Your task to perform on an android device: Search for a new desk on IKEA Image 0: 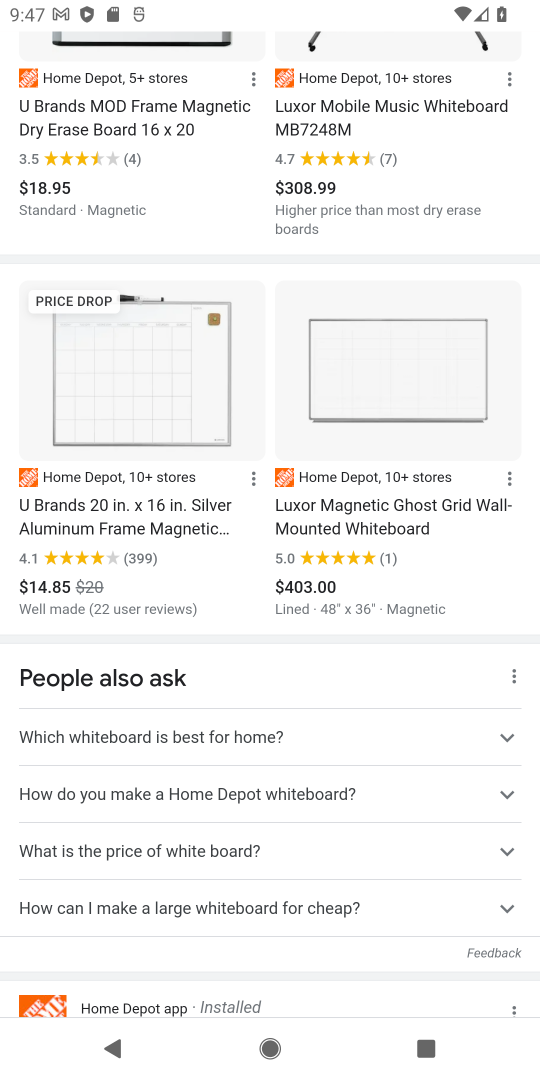
Step 0: press home button
Your task to perform on an android device: Search for a new desk on IKEA Image 1: 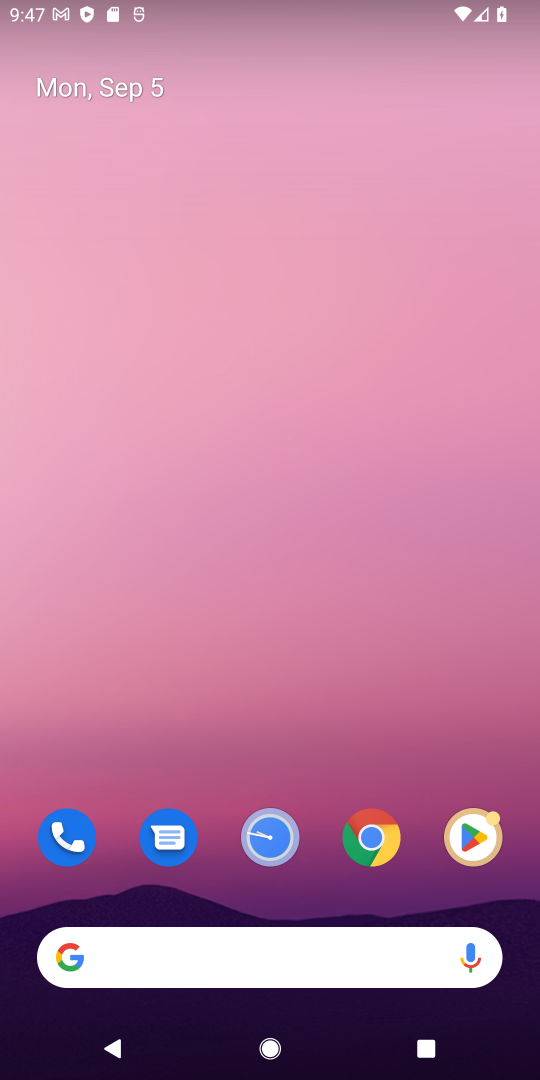
Step 1: drag from (313, 769) to (366, 6)
Your task to perform on an android device: Search for a new desk on IKEA Image 2: 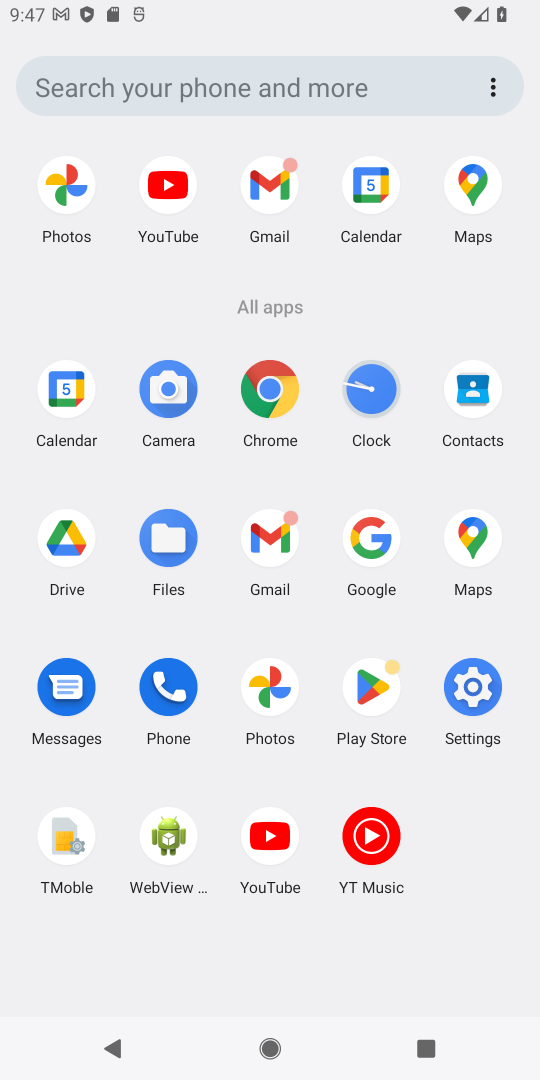
Step 2: click (283, 396)
Your task to perform on an android device: Search for a new desk on IKEA Image 3: 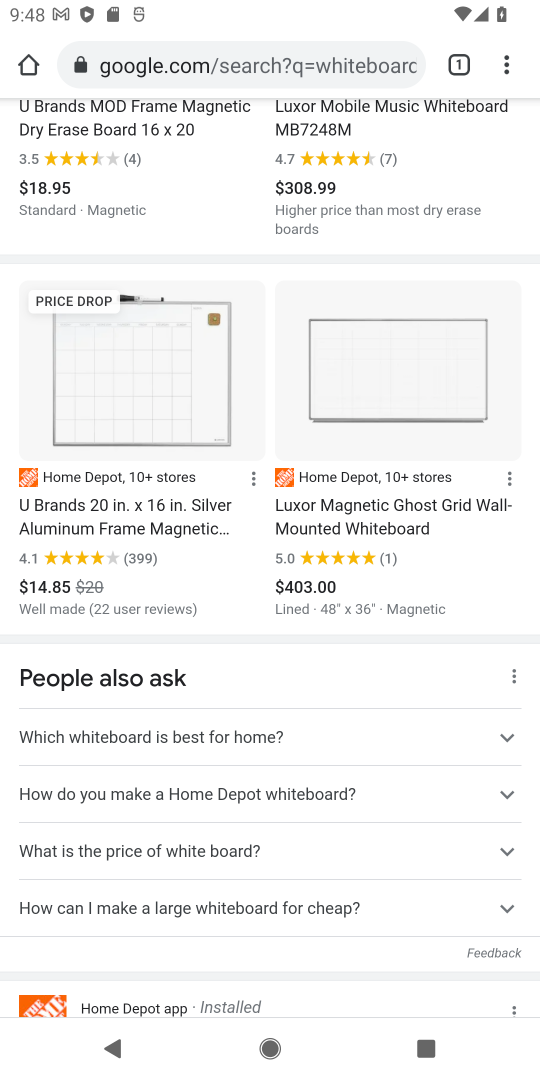
Step 3: click (455, 65)
Your task to perform on an android device: Search for a new desk on IKEA Image 4: 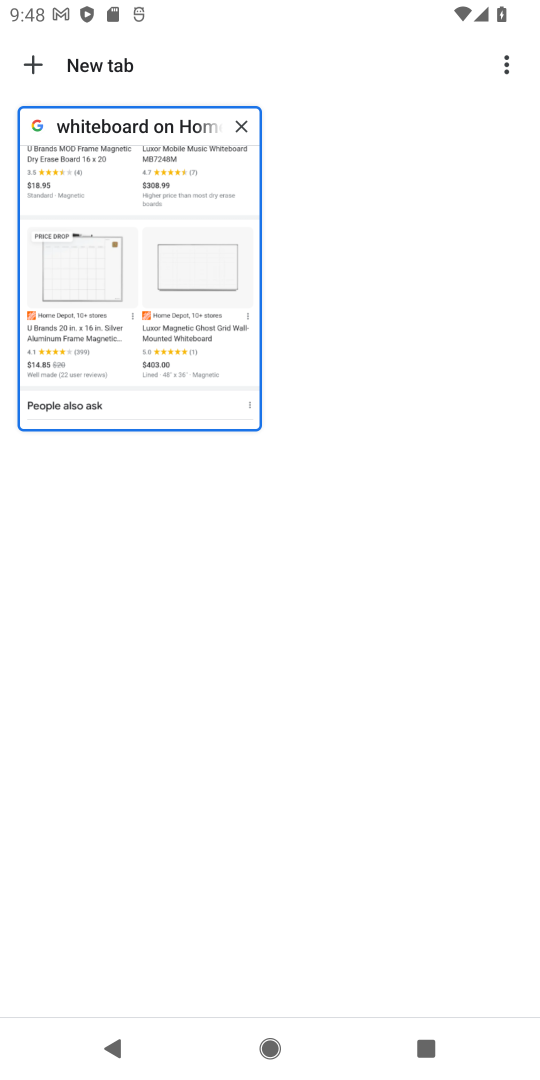
Step 4: click (30, 68)
Your task to perform on an android device: Search for a new desk on IKEA Image 5: 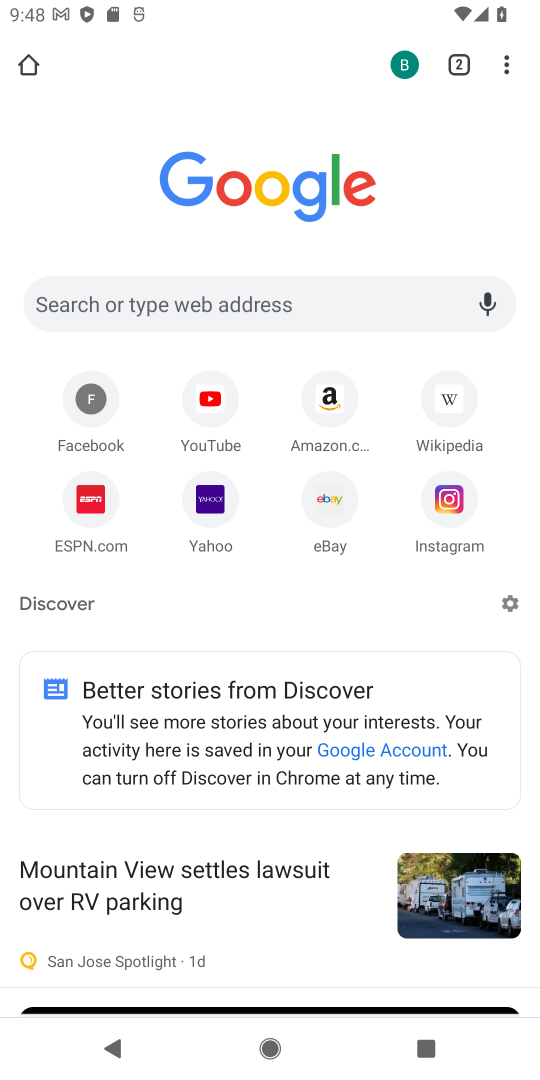
Step 5: click (204, 298)
Your task to perform on an android device: Search for a new desk on IKEA Image 6: 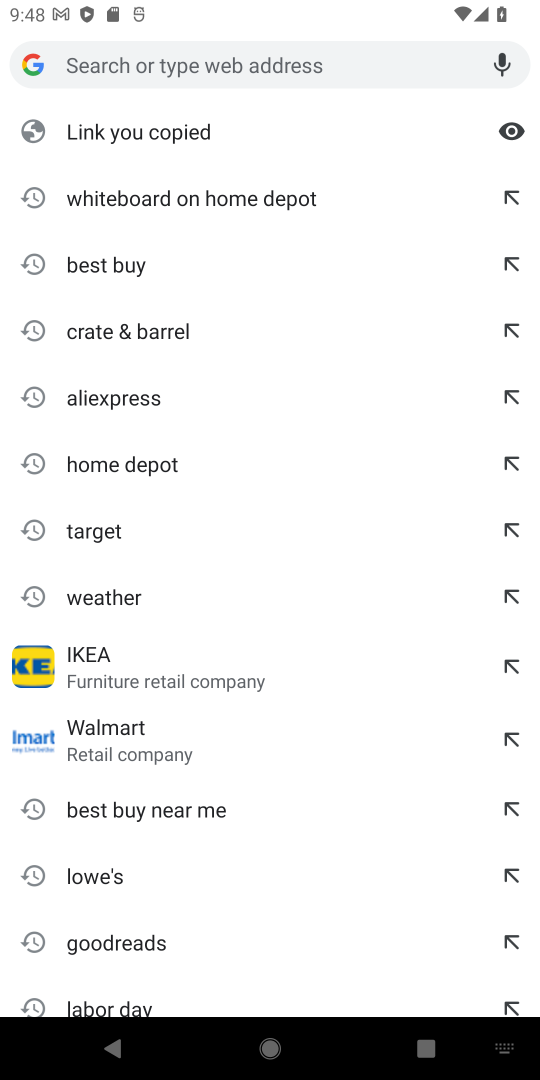
Step 6: type "new desk on IKEA"
Your task to perform on an android device: Search for a new desk on IKEA Image 7: 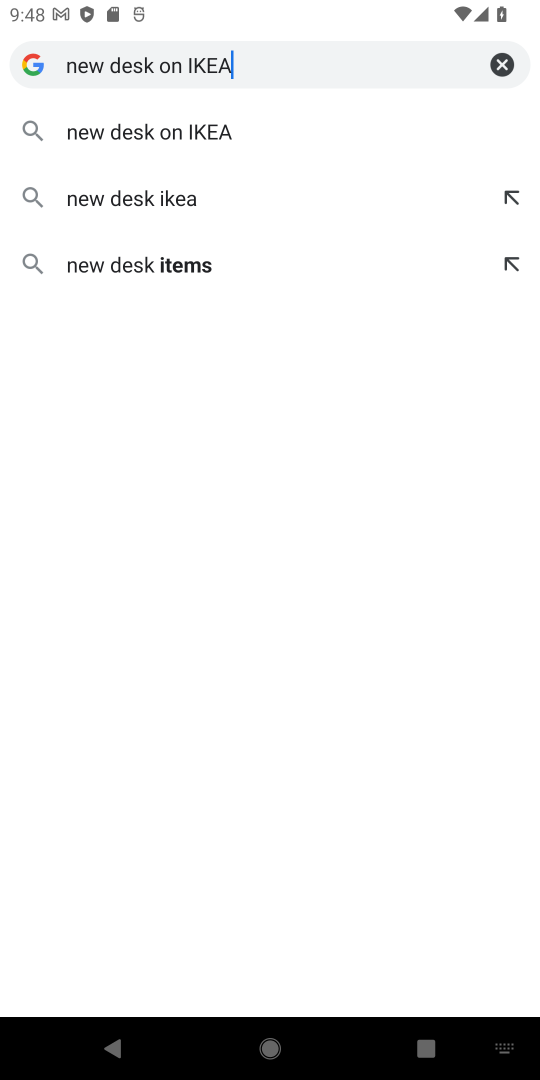
Step 7: click (236, 122)
Your task to perform on an android device: Search for a new desk on IKEA Image 8: 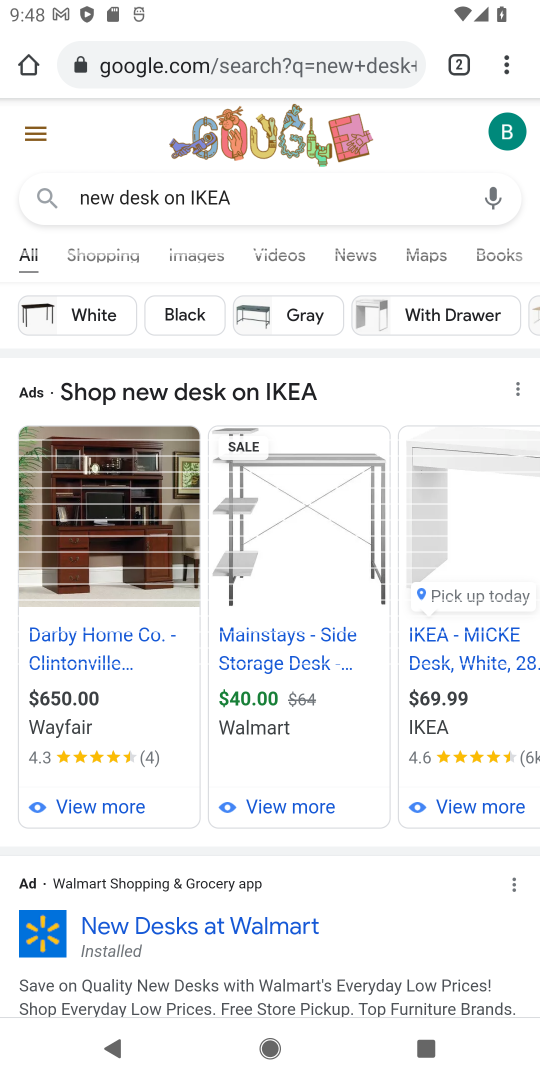
Step 8: drag from (306, 968) to (243, 449)
Your task to perform on an android device: Search for a new desk on IKEA Image 9: 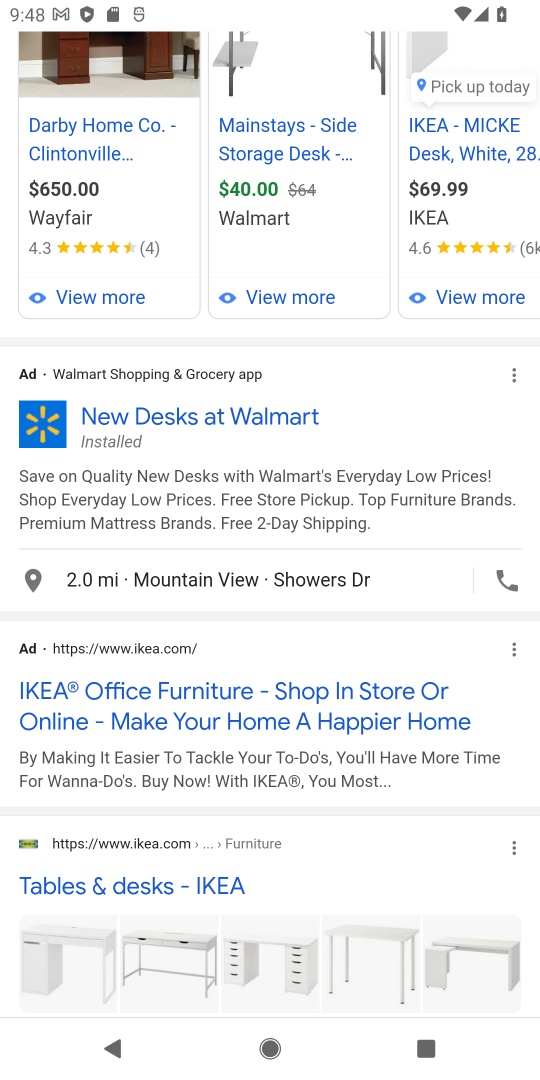
Step 9: drag from (375, 918) to (356, 397)
Your task to perform on an android device: Search for a new desk on IKEA Image 10: 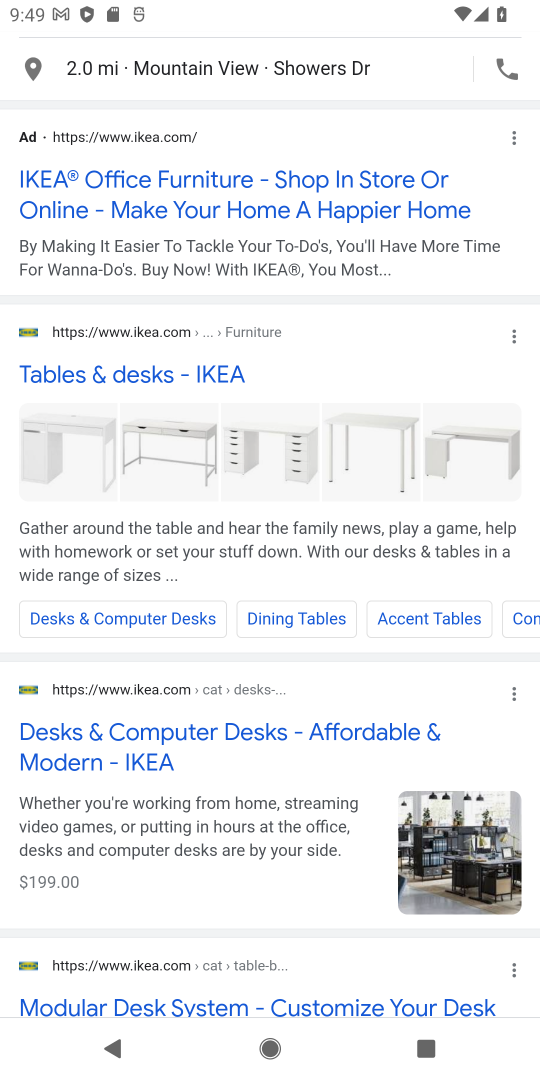
Step 10: click (219, 379)
Your task to perform on an android device: Search for a new desk on IKEA Image 11: 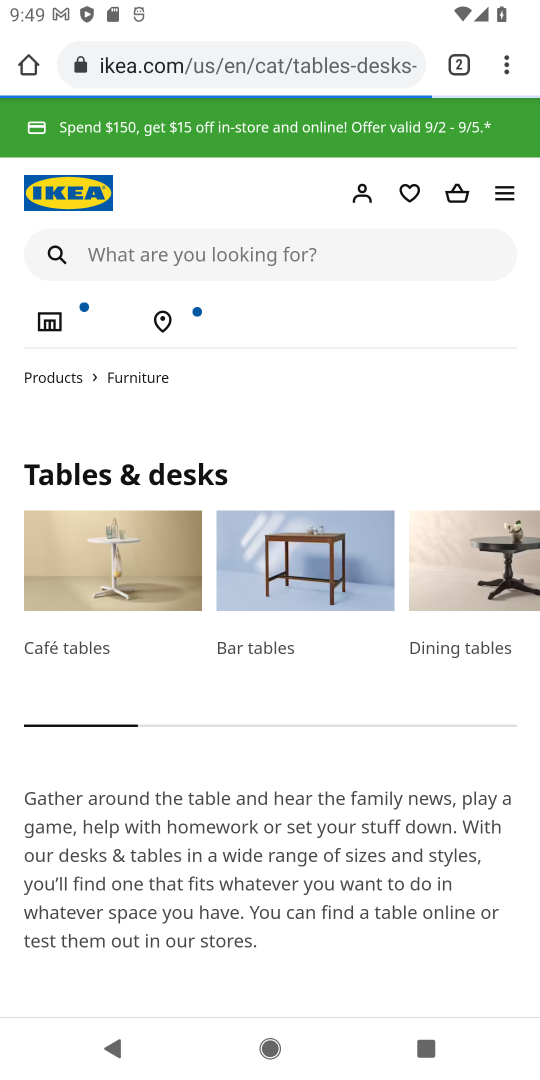
Step 11: drag from (272, 753) to (292, 130)
Your task to perform on an android device: Search for a new desk on IKEA Image 12: 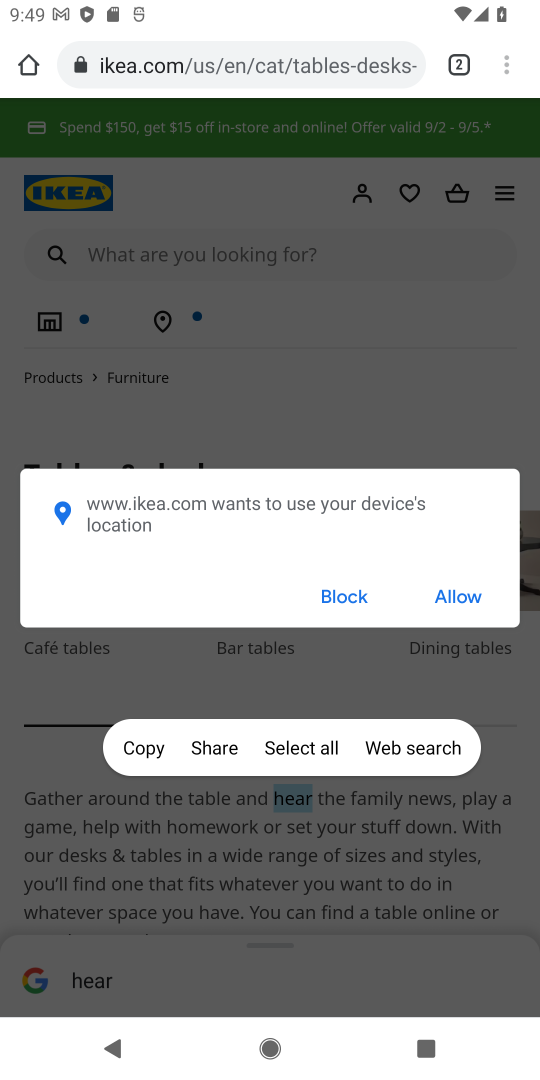
Step 12: drag from (244, 489) to (253, 128)
Your task to perform on an android device: Search for a new desk on IKEA Image 13: 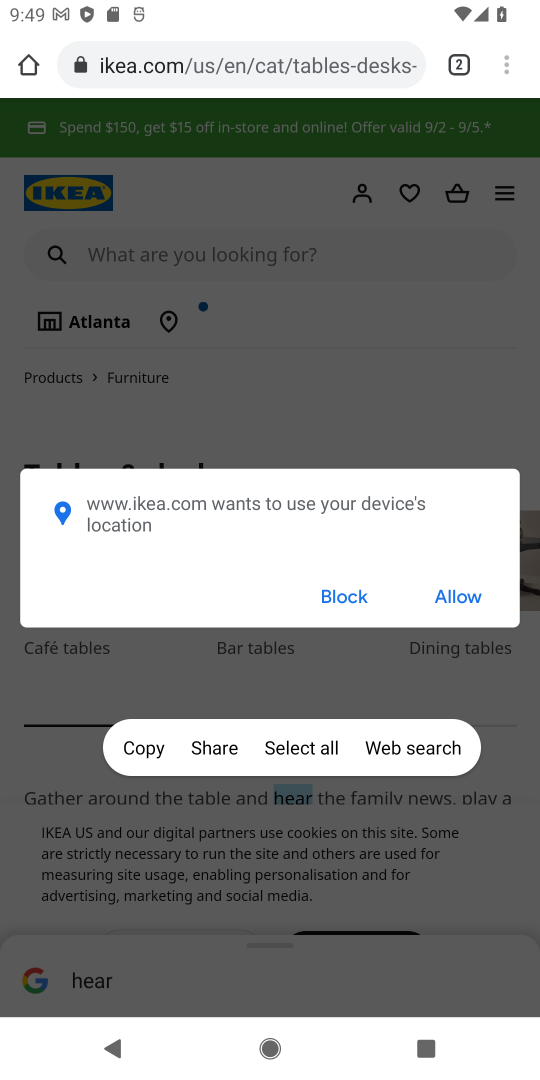
Step 13: click (459, 597)
Your task to perform on an android device: Search for a new desk on IKEA Image 14: 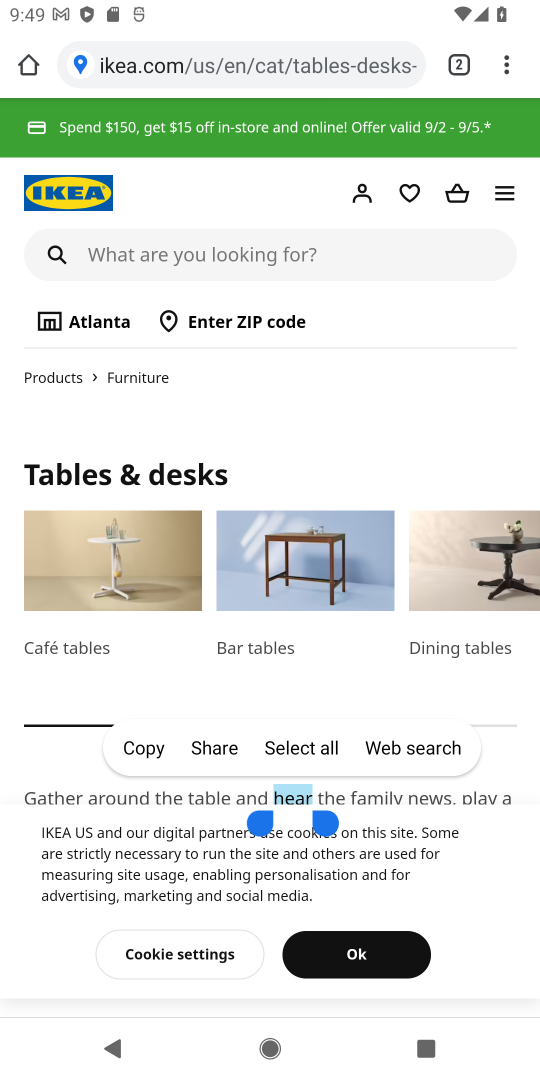
Step 14: click (356, 957)
Your task to perform on an android device: Search for a new desk on IKEA Image 15: 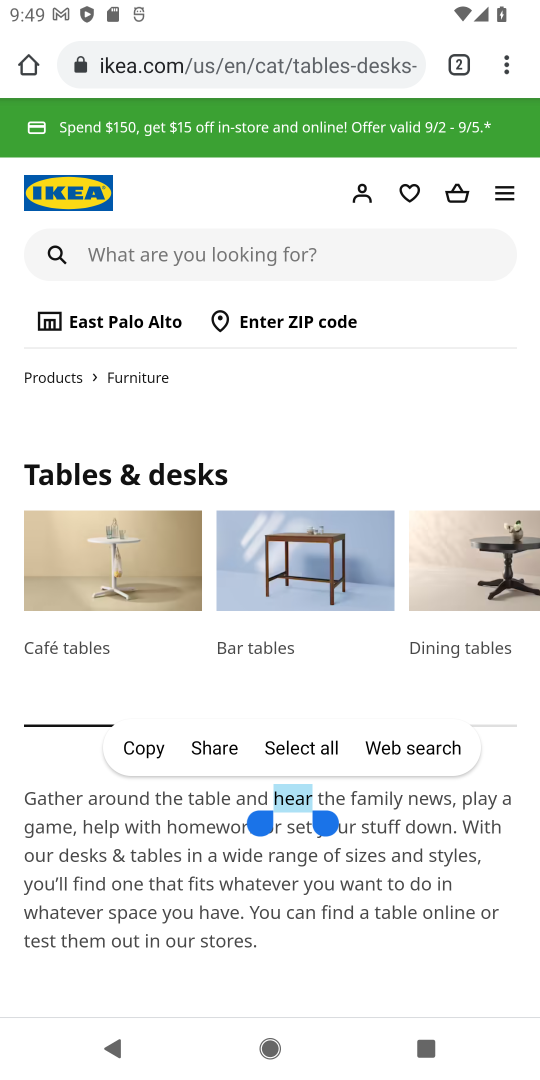
Step 15: task complete